Your task to perform on an android device: change notification settings in the gmail app Image 0: 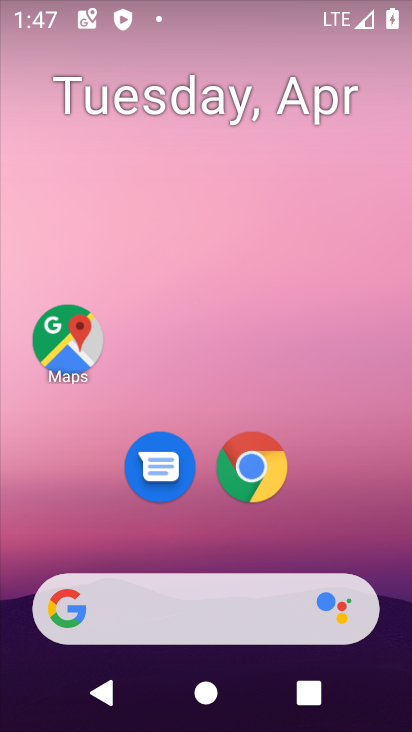
Step 0: drag from (391, 531) to (399, 124)
Your task to perform on an android device: change notification settings in the gmail app Image 1: 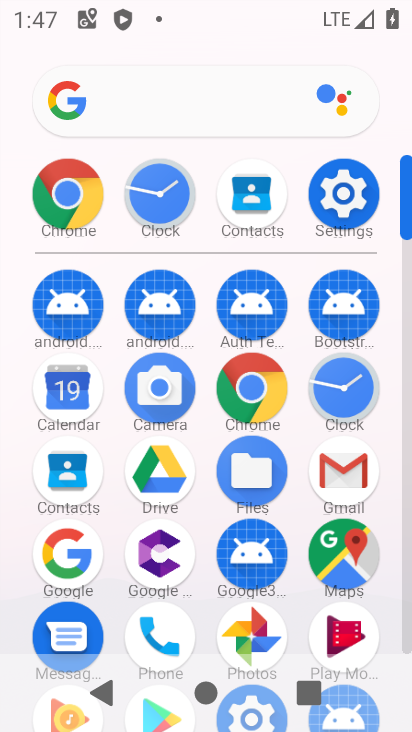
Step 1: click (331, 469)
Your task to perform on an android device: change notification settings in the gmail app Image 2: 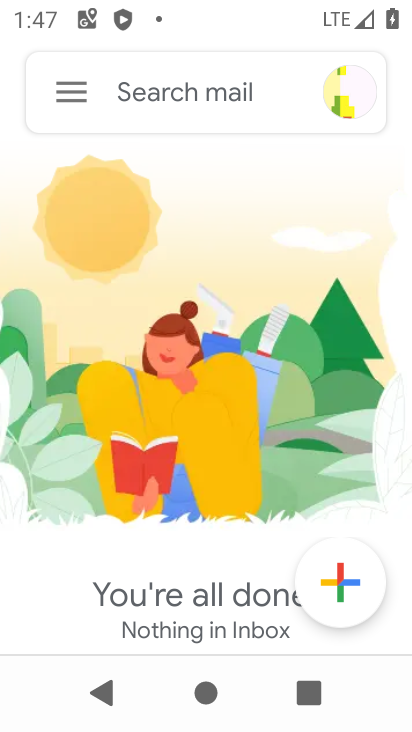
Step 2: click (67, 85)
Your task to perform on an android device: change notification settings in the gmail app Image 3: 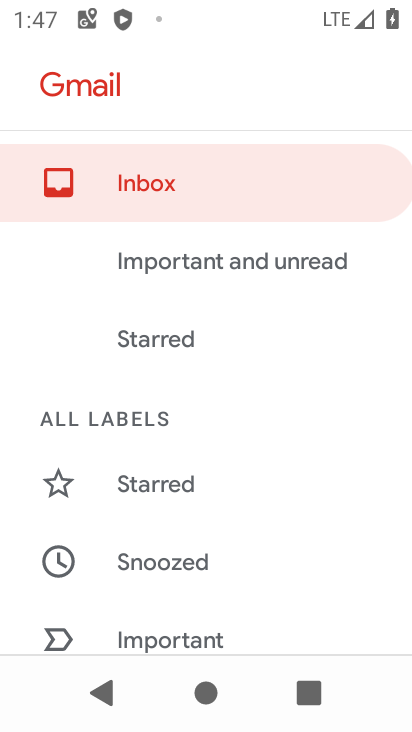
Step 3: drag from (336, 539) to (348, 296)
Your task to perform on an android device: change notification settings in the gmail app Image 4: 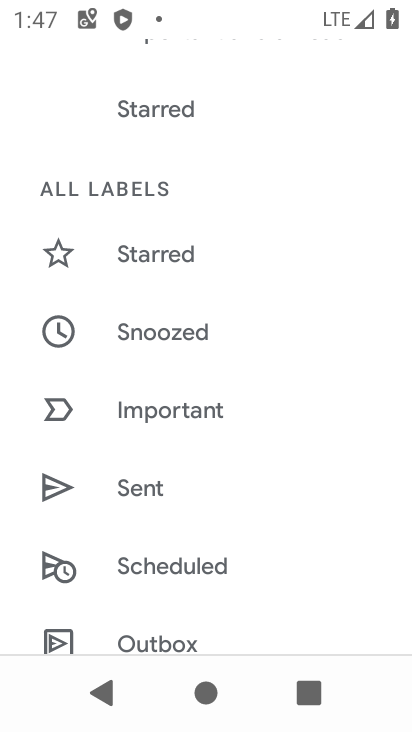
Step 4: drag from (349, 578) to (355, 315)
Your task to perform on an android device: change notification settings in the gmail app Image 5: 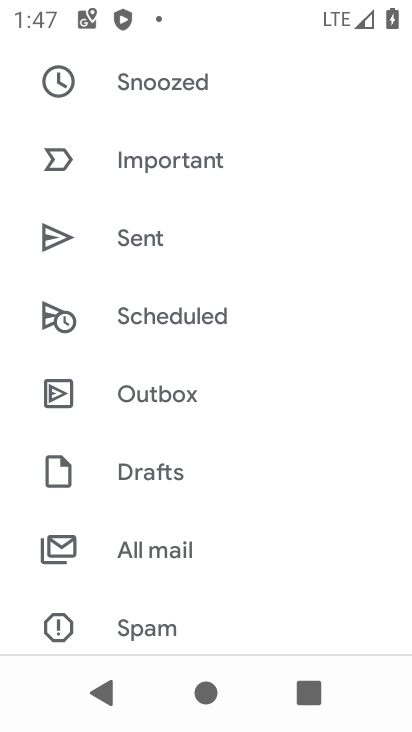
Step 5: drag from (336, 556) to (348, 304)
Your task to perform on an android device: change notification settings in the gmail app Image 6: 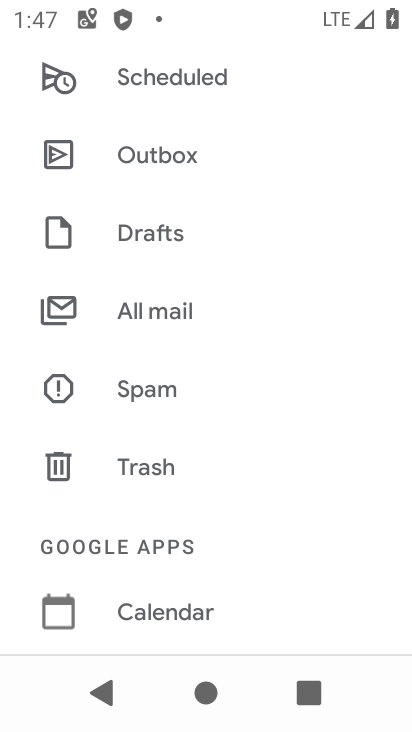
Step 6: drag from (315, 577) to (319, 298)
Your task to perform on an android device: change notification settings in the gmail app Image 7: 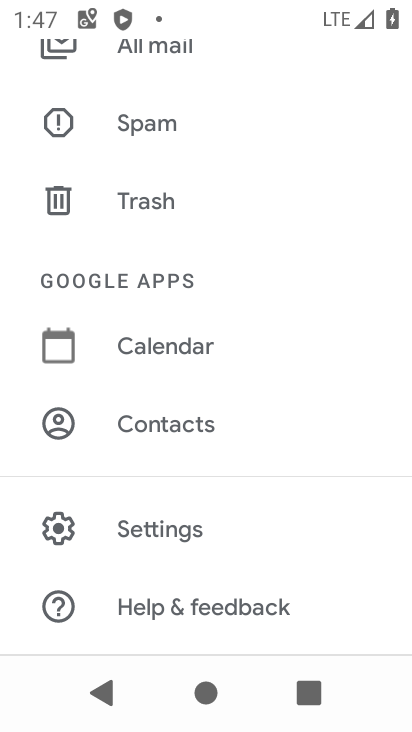
Step 7: click (174, 533)
Your task to perform on an android device: change notification settings in the gmail app Image 8: 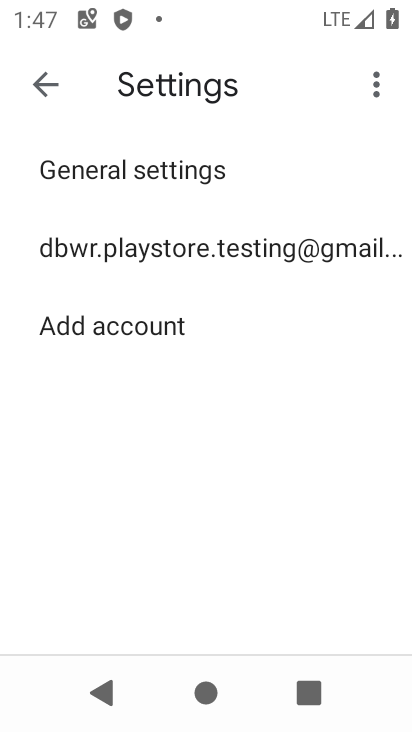
Step 8: click (199, 245)
Your task to perform on an android device: change notification settings in the gmail app Image 9: 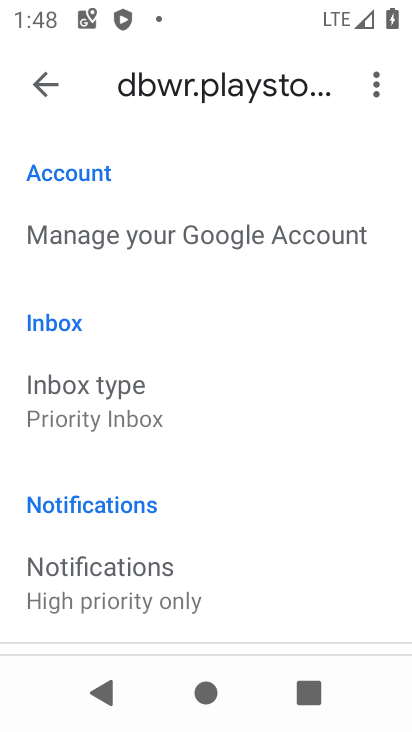
Step 9: drag from (289, 541) to (288, 301)
Your task to perform on an android device: change notification settings in the gmail app Image 10: 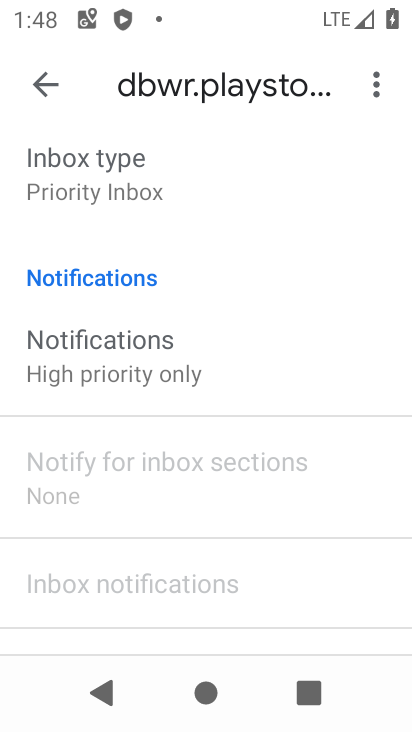
Step 10: click (105, 357)
Your task to perform on an android device: change notification settings in the gmail app Image 11: 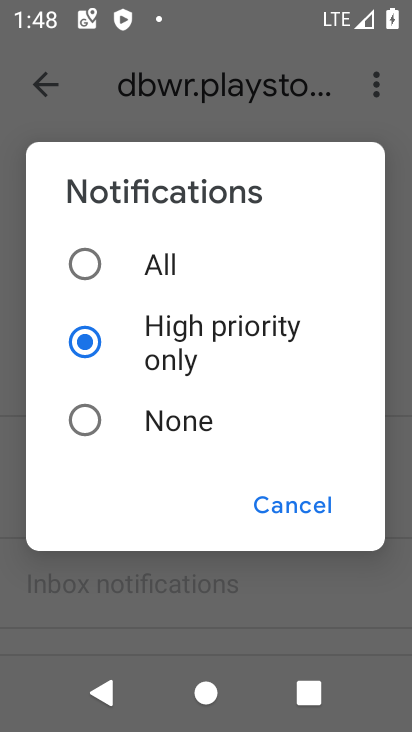
Step 11: click (79, 263)
Your task to perform on an android device: change notification settings in the gmail app Image 12: 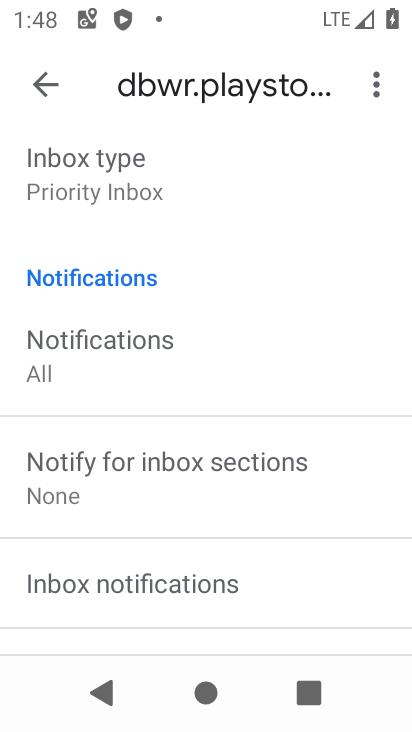
Step 12: task complete